Your task to perform on an android device: Go to sound settings Image 0: 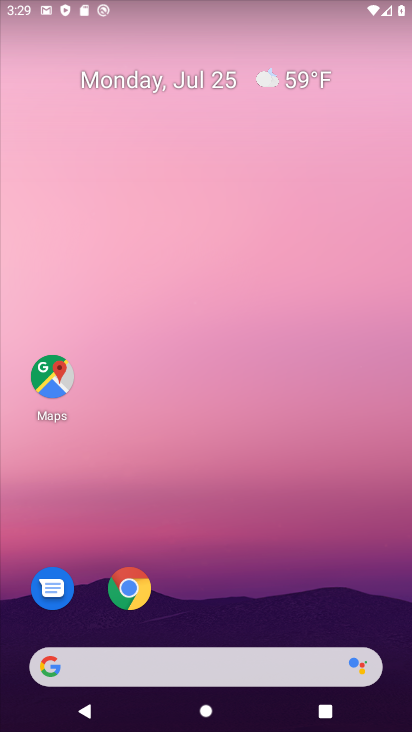
Step 0: drag from (338, 573) to (335, 65)
Your task to perform on an android device: Go to sound settings Image 1: 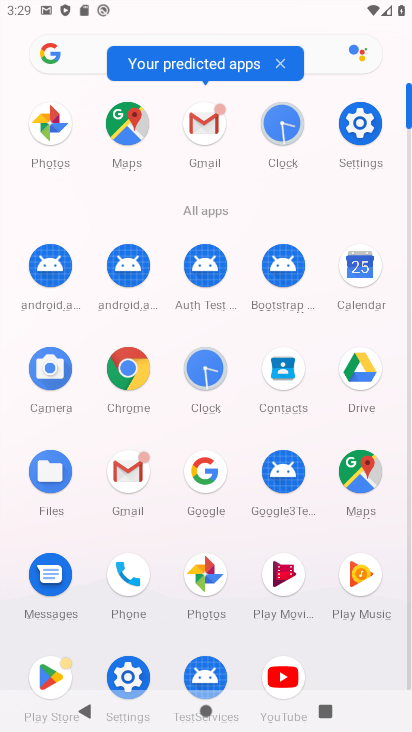
Step 1: click (357, 115)
Your task to perform on an android device: Go to sound settings Image 2: 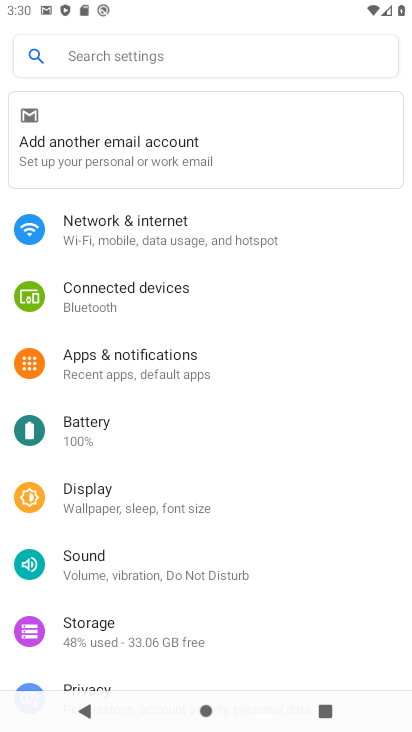
Step 2: drag from (96, 522) to (122, 226)
Your task to perform on an android device: Go to sound settings Image 3: 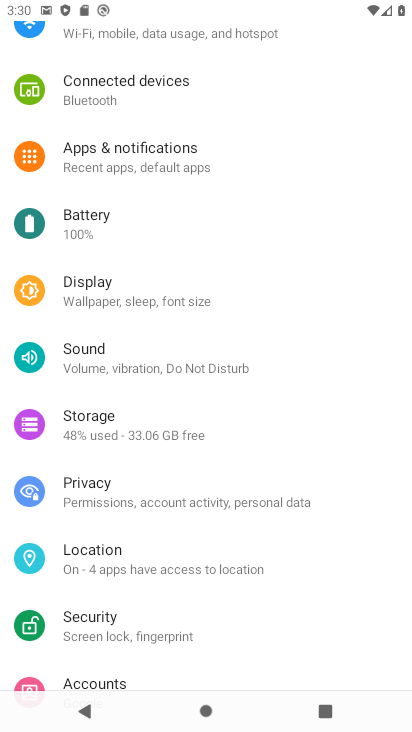
Step 3: click (101, 369)
Your task to perform on an android device: Go to sound settings Image 4: 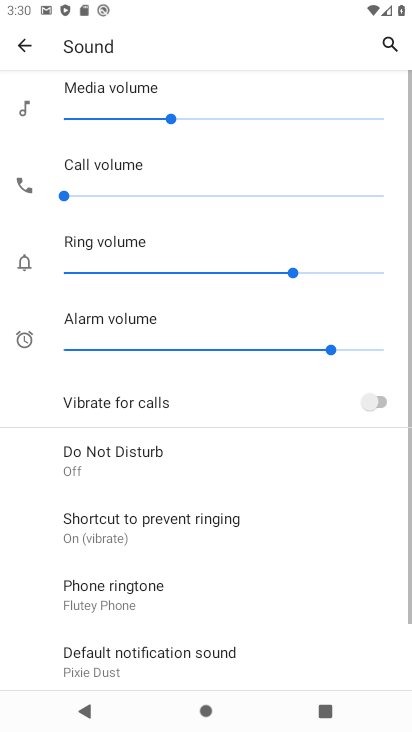
Step 4: task complete